Your task to perform on an android device: Turn on the flashlight Image 0: 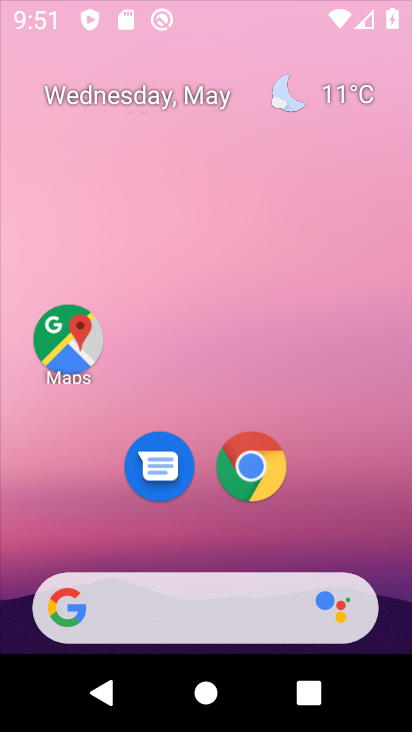
Step 0: click (261, 487)
Your task to perform on an android device: Turn on the flashlight Image 1: 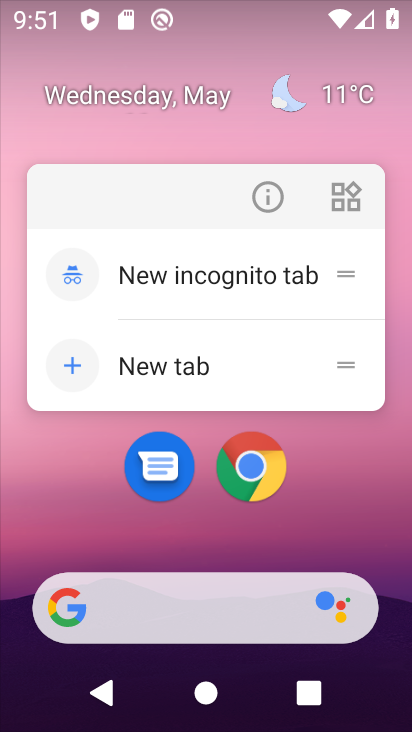
Step 1: click (262, 486)
Your task to perform on an android device: Turn on the flashlight Image 2: 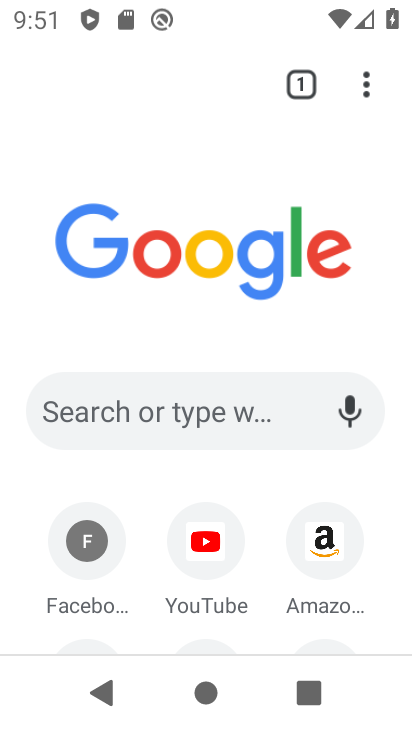
Step 2: drag from (251, 587) to (253, 369)
Your task to perform on an android device: Turn on the flashlight Image 3: 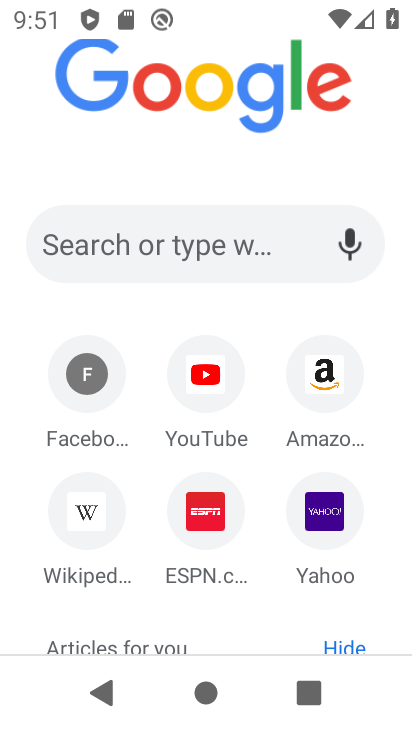
Step 3: drag from (262, 591) to (274, 447)
Your task to perform on an android device: Turn on the flashlight Image 4: 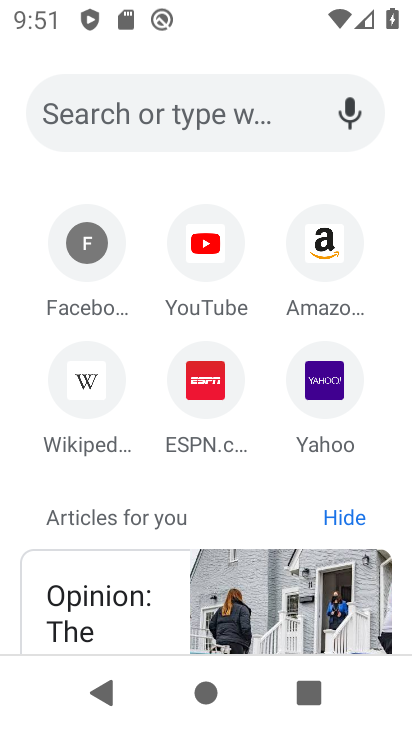
Step 4: click (173, 113)
Your task to perform on an android device: Turn on the flashlight Image 5: 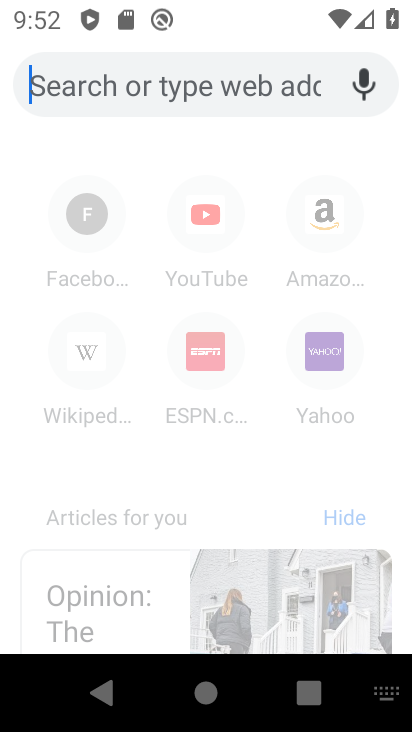
Step 5: type "www.reddit.com"
Your task to perform on an android device: Turn on the flashlight Image 6: 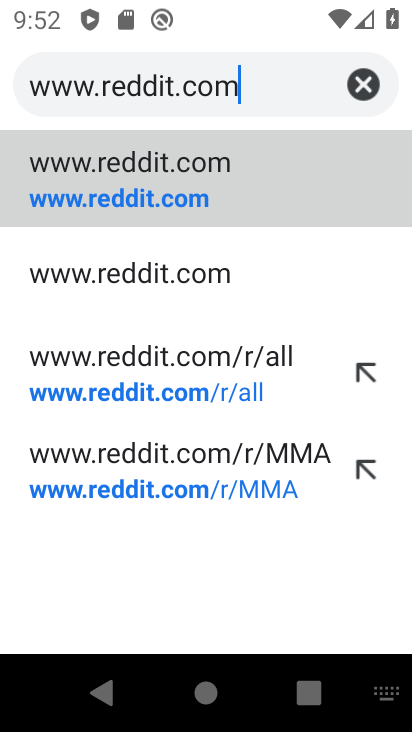
Step 6: click (96, 193)
Your task to perform on an android device: Turn on the flashlight Image 7: 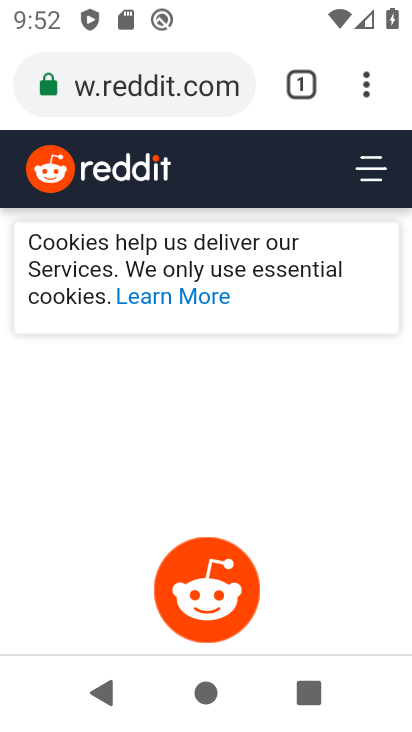
Step 7: task complete